Your task to perform on an android device: Open the phone app and click the voicemail tab. Image 0: 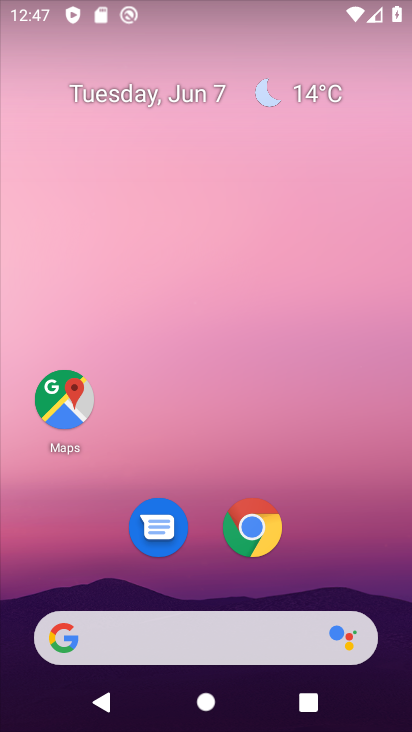
Step 0: drag from (211, 386) to (248, 156)
Your task to perform on an android device: Open the phone app and click the voicemail tab. Image 1: 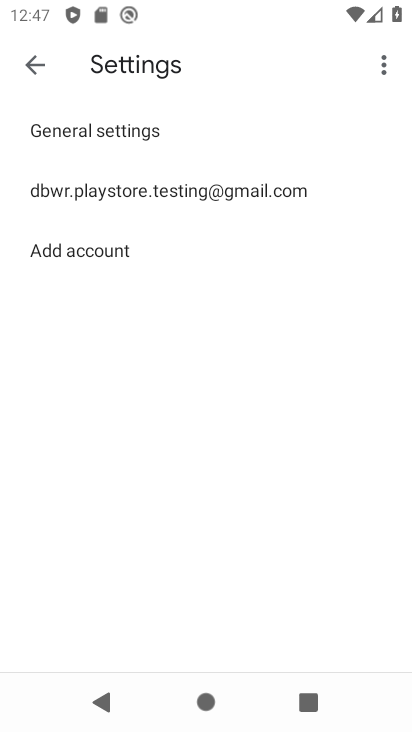
Step 1: press back button
Your task to perform on an android device: Open the phone app and click the voicemail tab. Image 2: 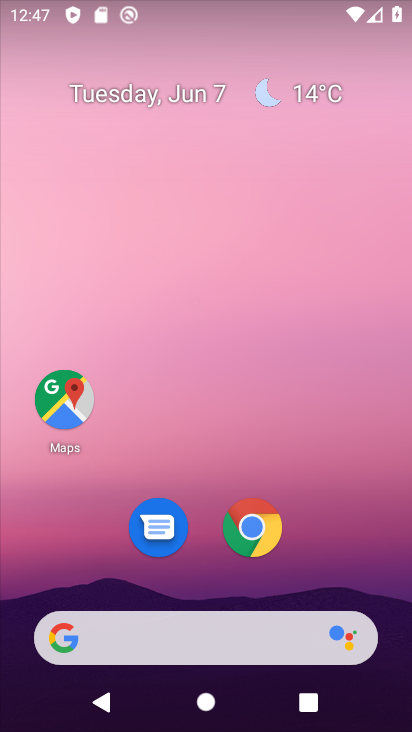
Step 2: drag from (147, 599) to (237, 95)
Your task to perform on an android device: Open the phone app and click the voicemail tab. Image 3: 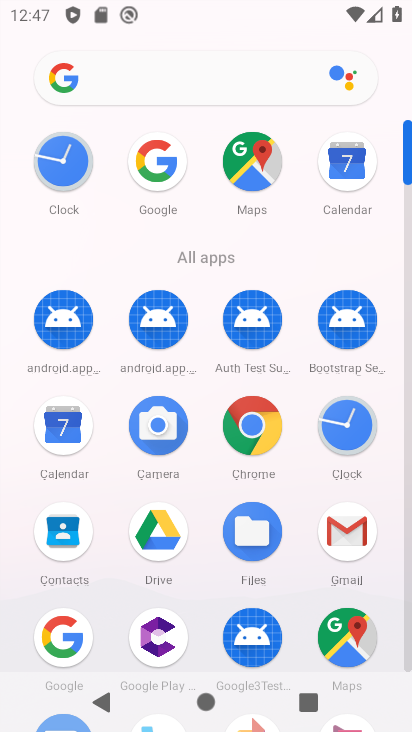
Step 3: drag from (229, 568) to (281, 158)
Your task to perform on an android device: Open the phone app and click the voicemail tab. Image 4: 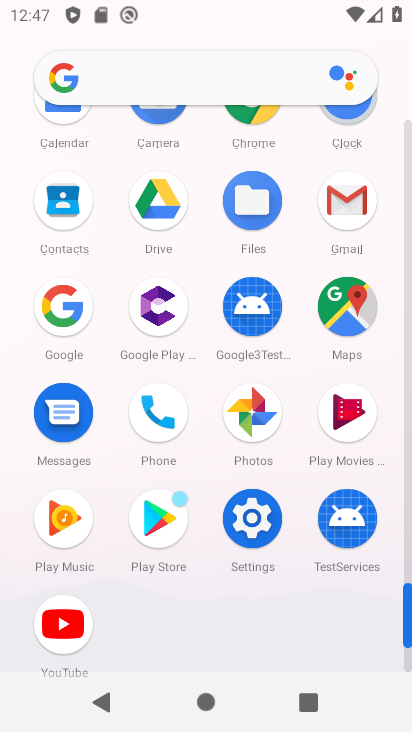
Step 4: click (155, 416)
Your task to perform on an android device: Open the phone app and click the voicemail tab. Image 5: 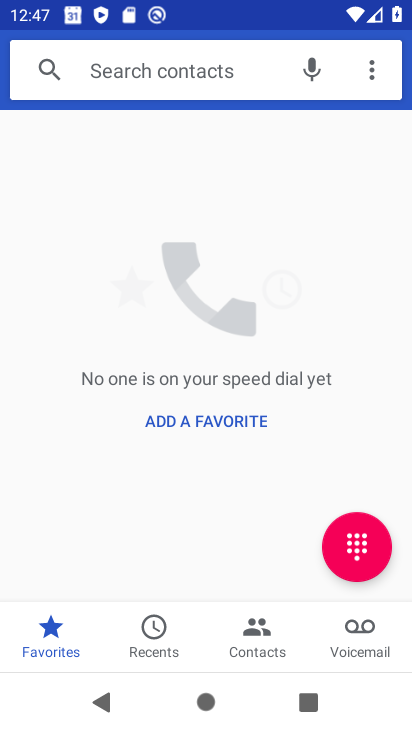
Step 5: click (364, 629)
Your task to perform on an android device: Open the phone app and click the voicemail tab. Image 6: 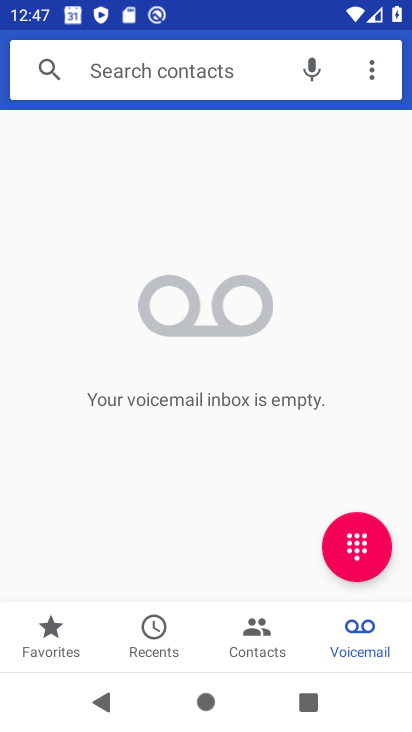
Step 6: task complete